Your task to perform on an android device: check android version Image 0: 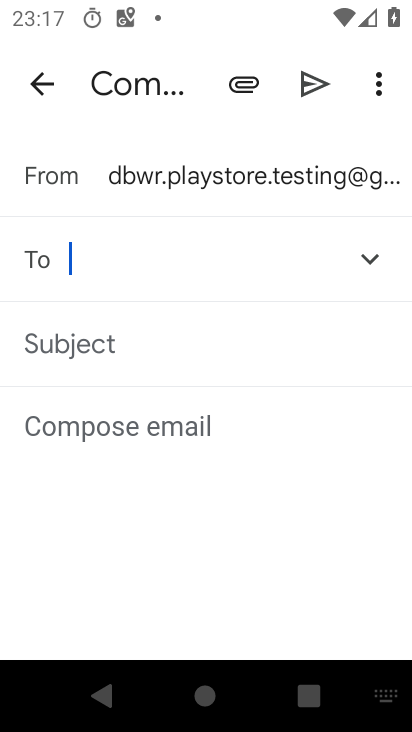
Step 0: press home button
Your task to perform on an android device: check android version Image 1: 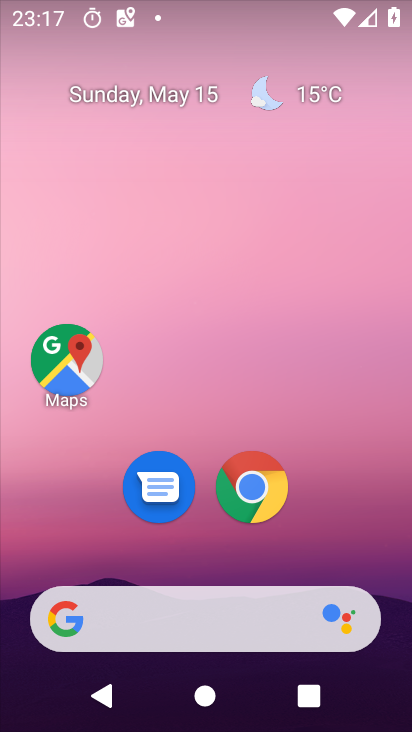
Step 1: drag from (391, 491) to (391, 259)
Your task to perform on an android device: check android version Image 2: 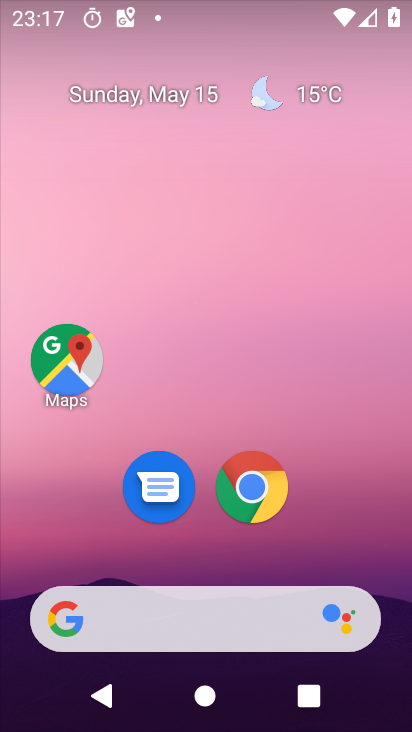
Step 2: drag from (395, 651) to (375, 338)
Your task to perform on an android device: check android version Image 3: 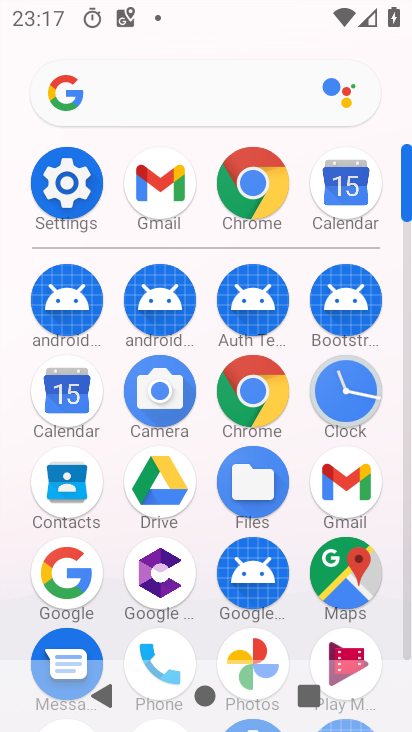
Step 3: drag from (407, 136) to (406, 91)
Your task to perform on an android device: check android version Image 4: 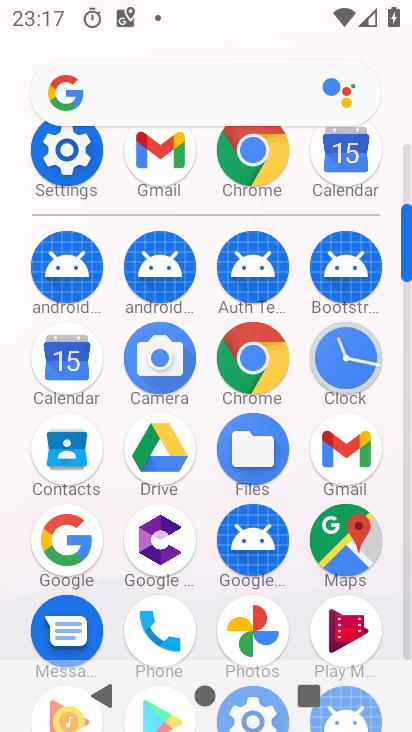
Step 4: drag from (404, 208) to (400, 117)
Your task to perform on an android device: check android version Image 5: 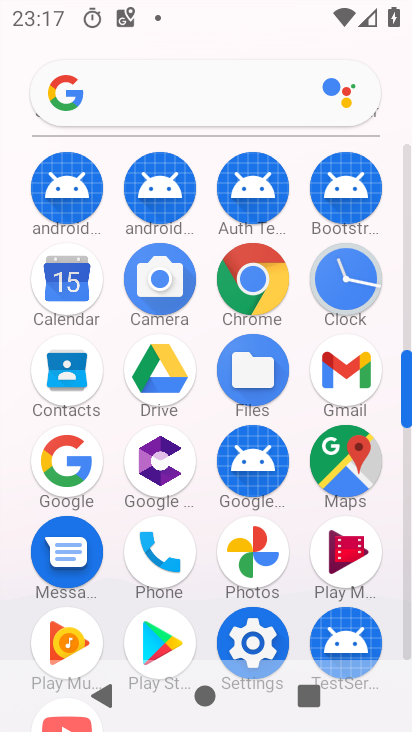
Step 5: click (240, 625)
Your task to perform on an android device: check android version Image 6: 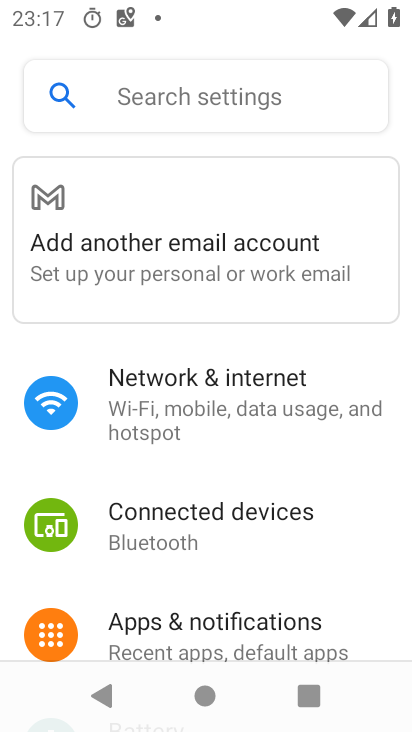
Step 6: drag from (387, 636) to (391, 193)
Your task to perform on an android device: check android version Image 7: 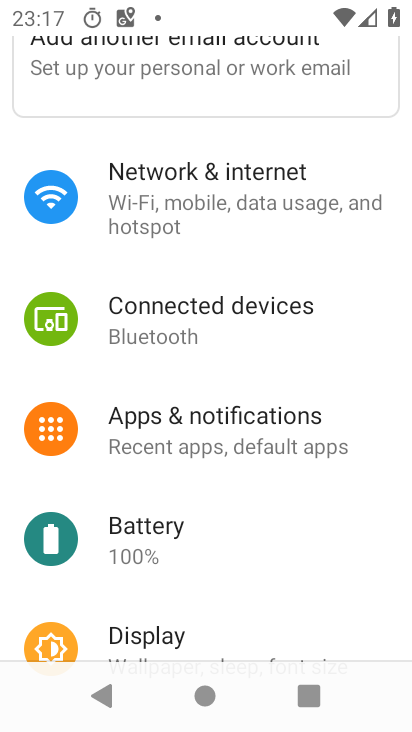
Step 7: drag from (352, 607) to (334, 407)
Your task to perform on an android device: check android version Image 8: 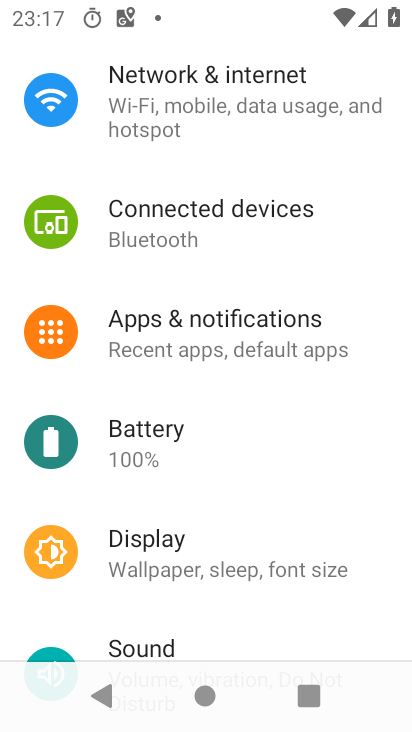
Step 8: drag from (333, 626) to (340, 396)
Your task to perform on an android device: check android version Image 9: 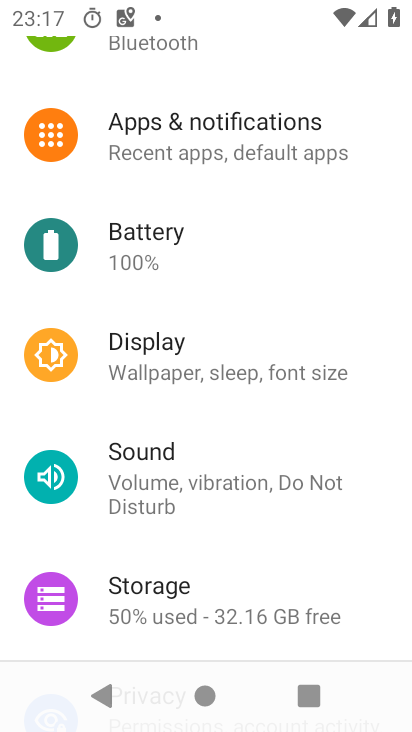
Step 9: drag from (374, 619) to (366, 313)
Your task to perform on an android device: check android version Image 10: 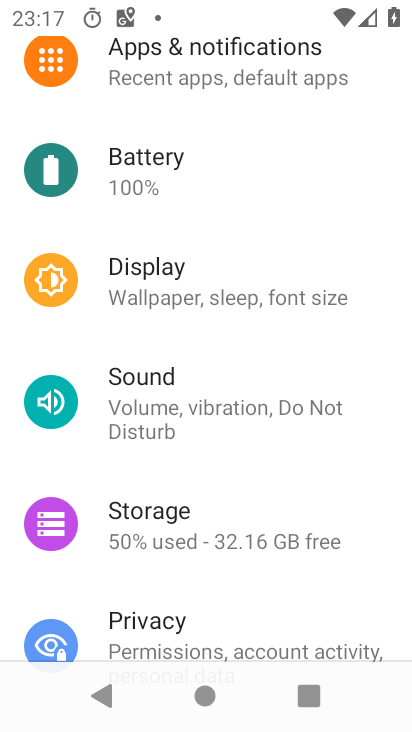
Step 10: drag from (344, 626) to (320, 283)
Your task to perform on an android device: check android version Image 11: 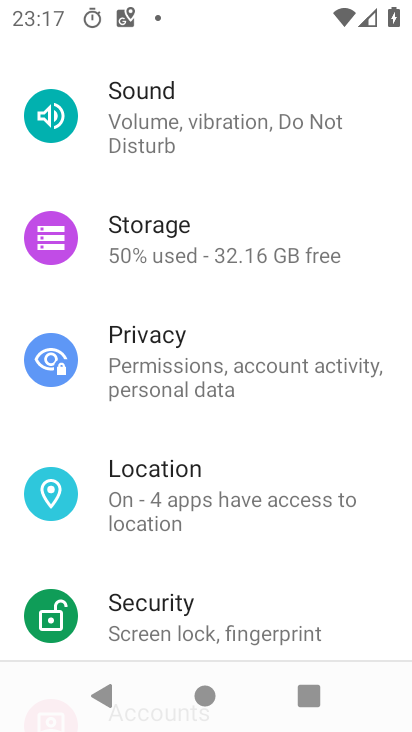
Step 11: drag from (359, 553) to (352, 324)
Your task to perform on an android device: check android version Image 12: 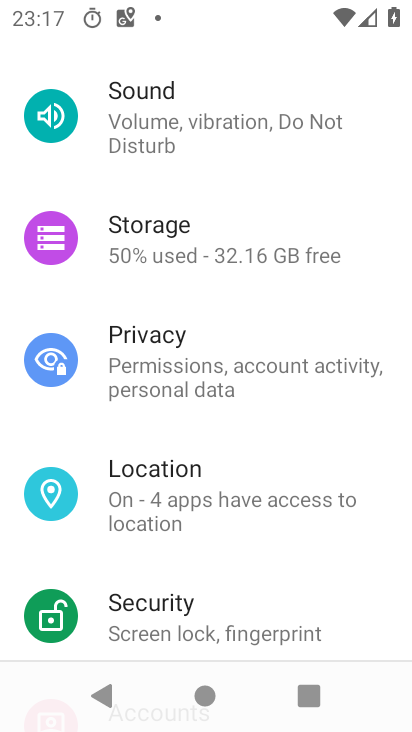
Step 12: drag from (379, 621) to (375, 281)
Your task to perform on an android device: check android version Image 13: 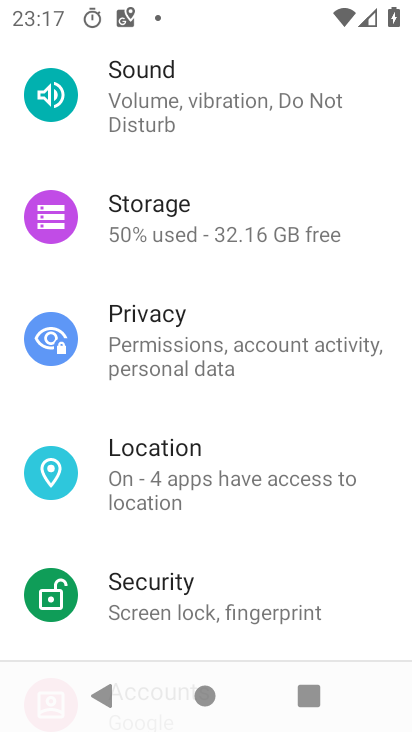
Step 13: drag from (331, 580) to (315, 306)
Your task to perform on an android device: check android version Image 14: 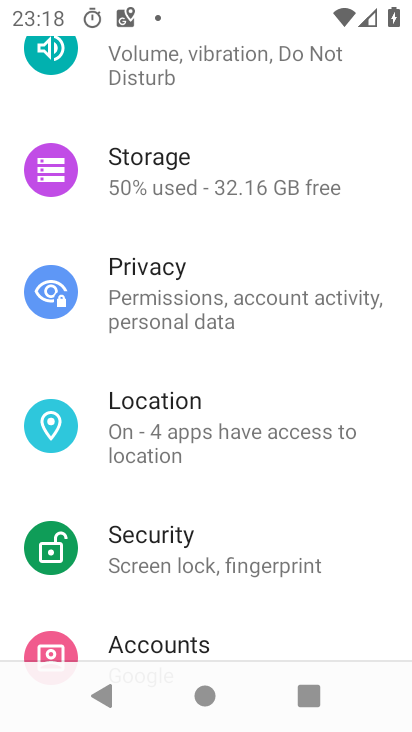
Step 14: drag from (358, 633) to (358, 361)
Your task to perform on an android device: check android version Image 15: 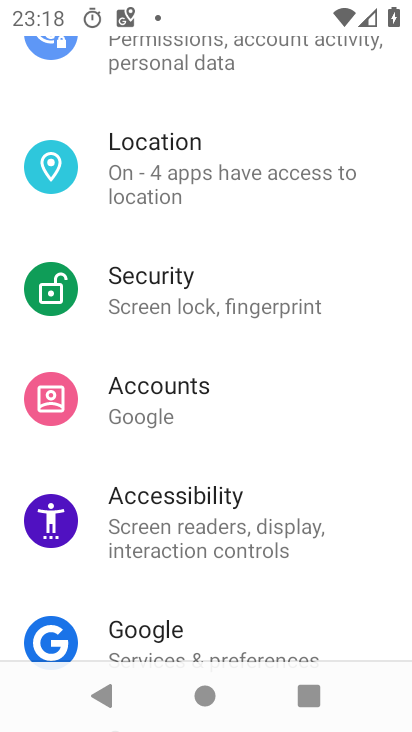
Step 15: drag from (332, 568) to (319, 422)
Your task to perform on an android device: check android version Image 16: 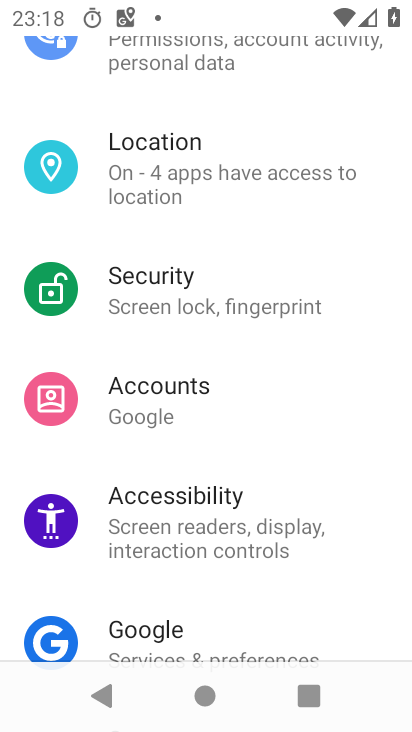
Step 16: click (331, 400)
Your task to perform on an android device: check android version Image 17: 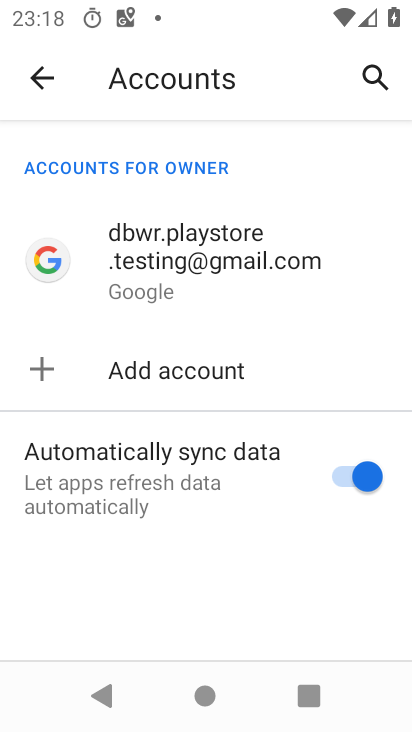
Step 17: click (38, 85)
Your task to perform on an android device: check android version Image 18: 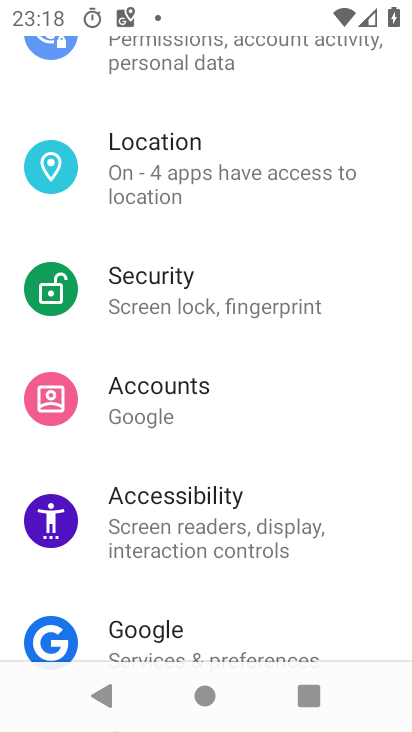
Step 18: drag from (329, 616) to (338, 444)
Your task to perform on an android device: check android version Image 19: 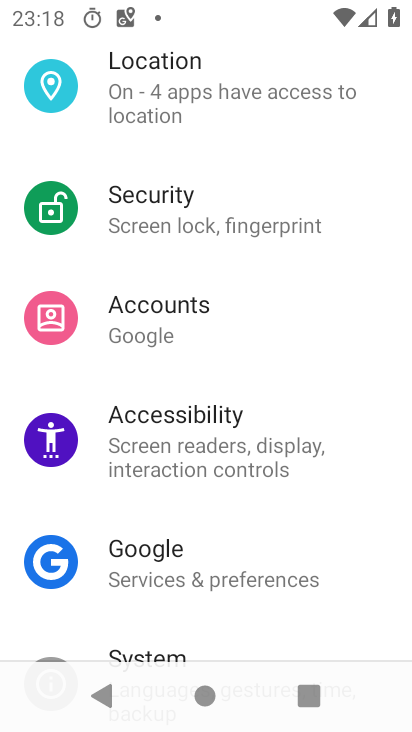
Step 19: drag from (345, 616) to (320, 334)
Your task to perform on an android device: check android version Image 20: 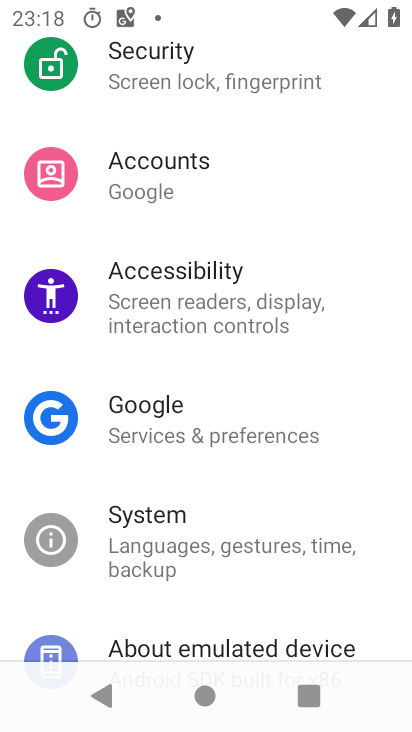
Step 20: drag from (331, 513) to (339, 352)
Your task to perform on an android device: check android version Image 21: 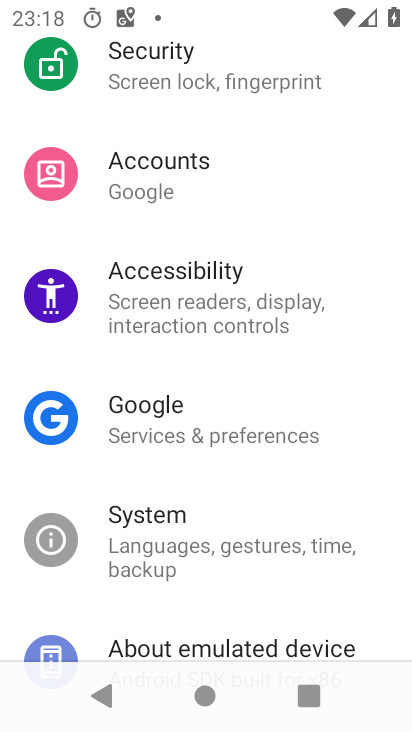
Step 21: click (134, 638)
Your task to perform on an android device: check android version Image 22: 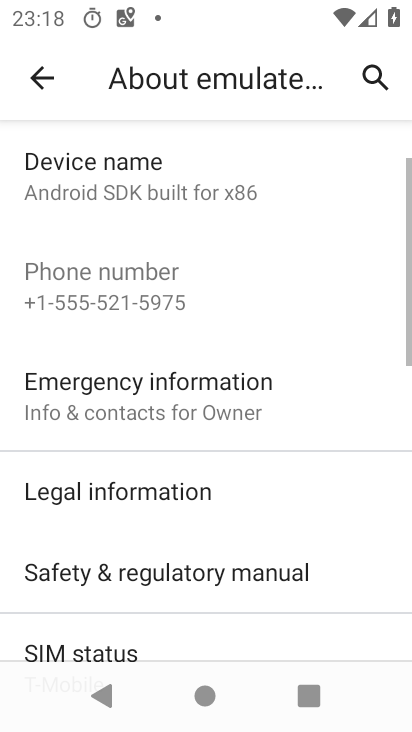
Step 22: drag from (367, 588) to (372, 245)
Your task to perform on an android device: check android version Image 23: 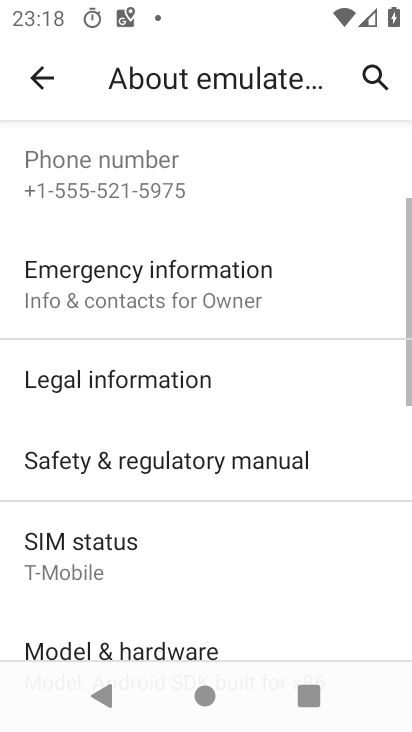
Step 23: drag from (335, 608) to (303, 332)
Your task to perform on an android device: check android version Image 24: 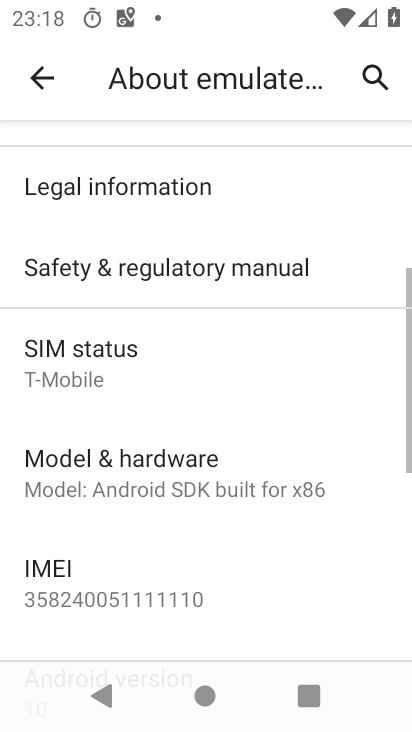
Step 24: drag from (332, 601) to (306, 320)
Your task to perform on an android device: check android version Image 25: 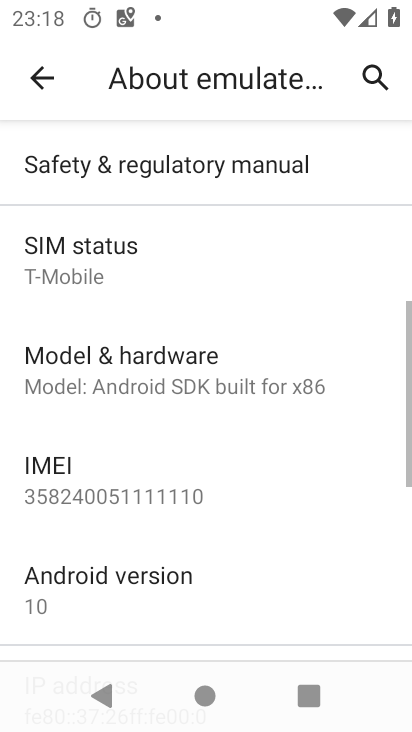
Step 25: click (129, 577)
Your task to perform on an android device: check android version Image 26: 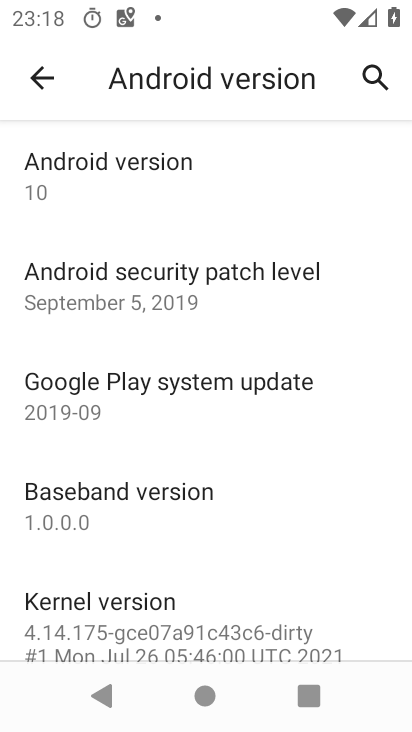
Step 26: task complete